Your task to perform on an android device: Search for the best fantasy books on Goodreads. Image 0: 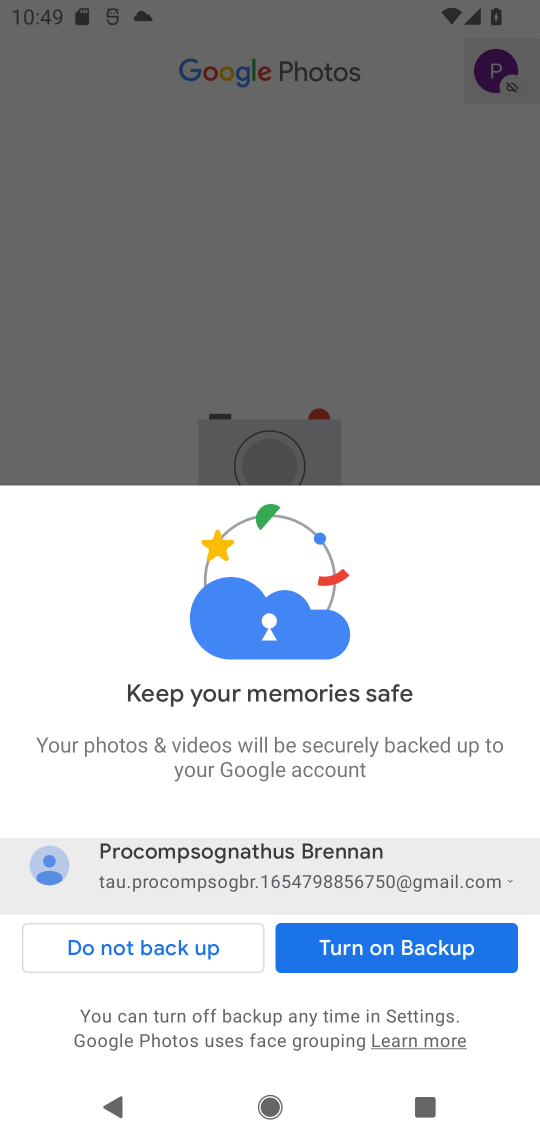
Step 0: press home button
Your task to perform on an android device: Search for the best fantasy books on Goodreads. Image 1: 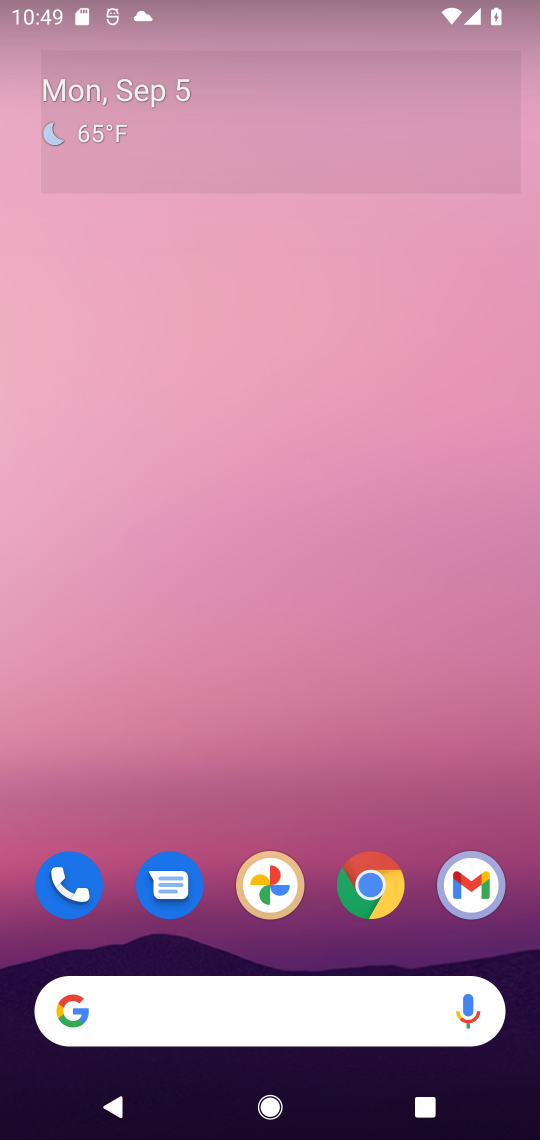
Step 1: drag from (344, 683) to (347, 22)
Your task to perform on an android device: Search for the best fantasy books on Goodreads. Image 2: 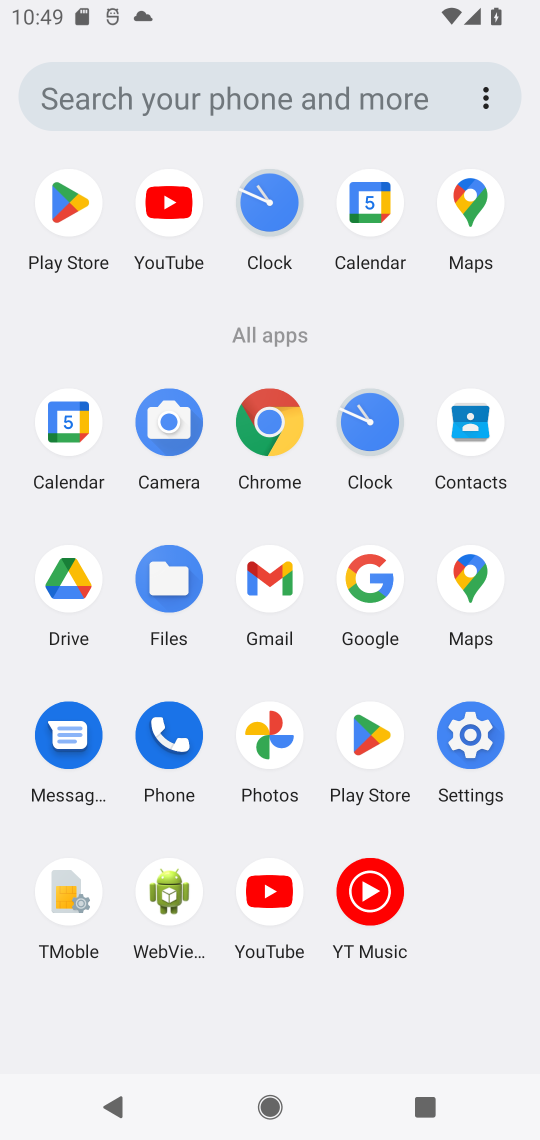
Step 2: click (369, 582)
Your task to perform on an android device: Search for the best fantasy books on Goodreads. Image 3: 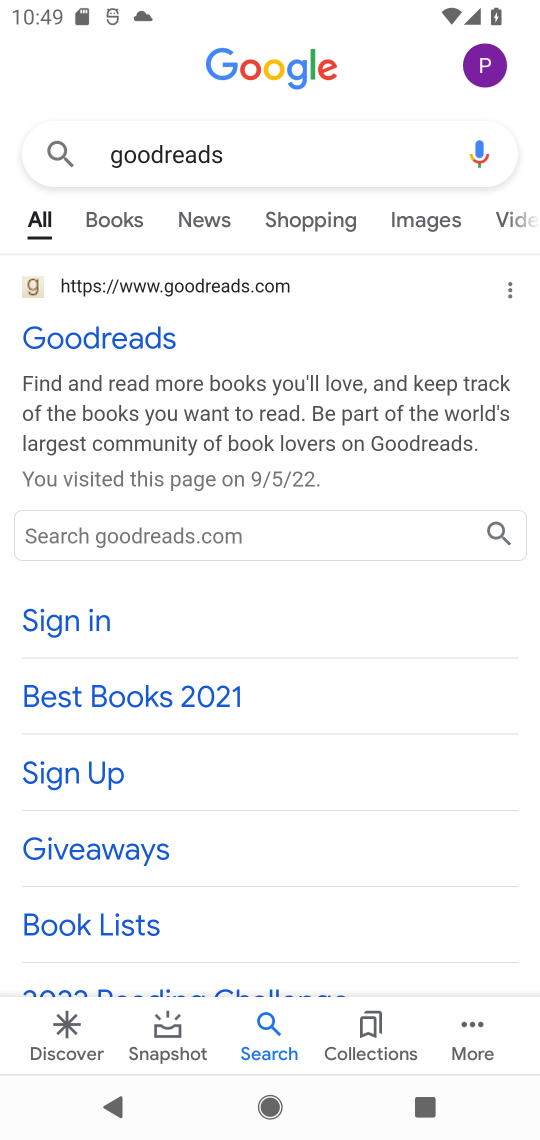
Step 3: click (114, 336)
Your task to perform on an android device: Search for the best fantasy books on Goodreads. Image 4: 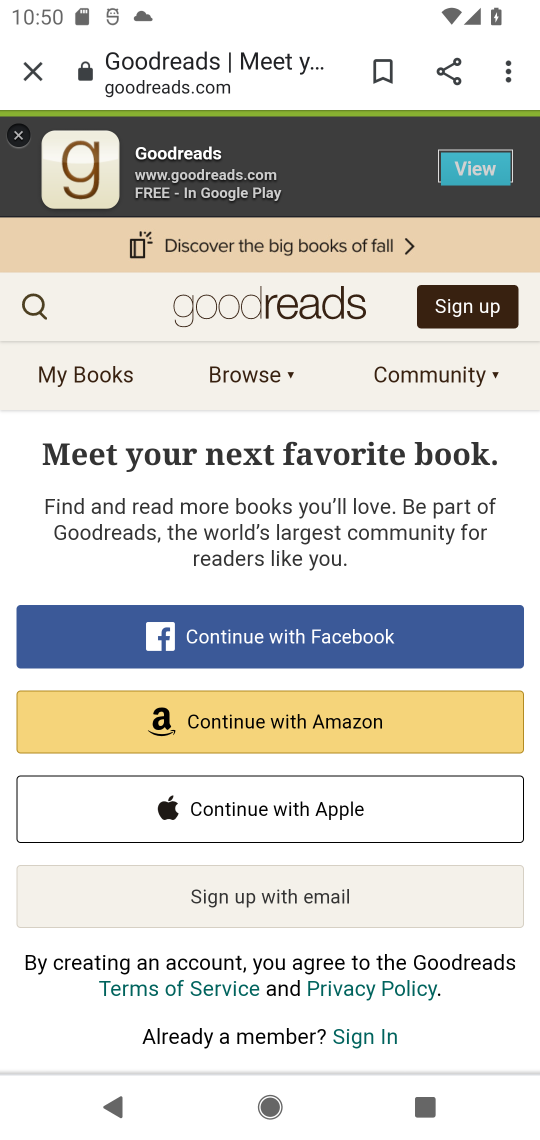
Step 4: task complete